Your task to perform on an android device: Open settings on Google Maps Image 0: 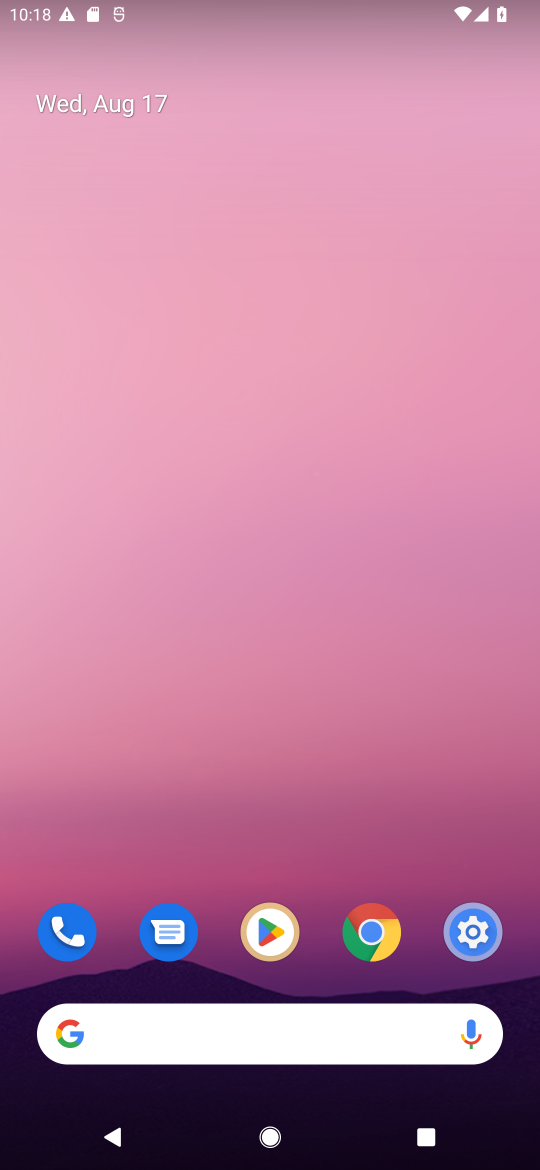
Step 0: drag from (311, 774) to (331, 94)
Your task to perform on an android device: Open settings on Google Maps Image 1: 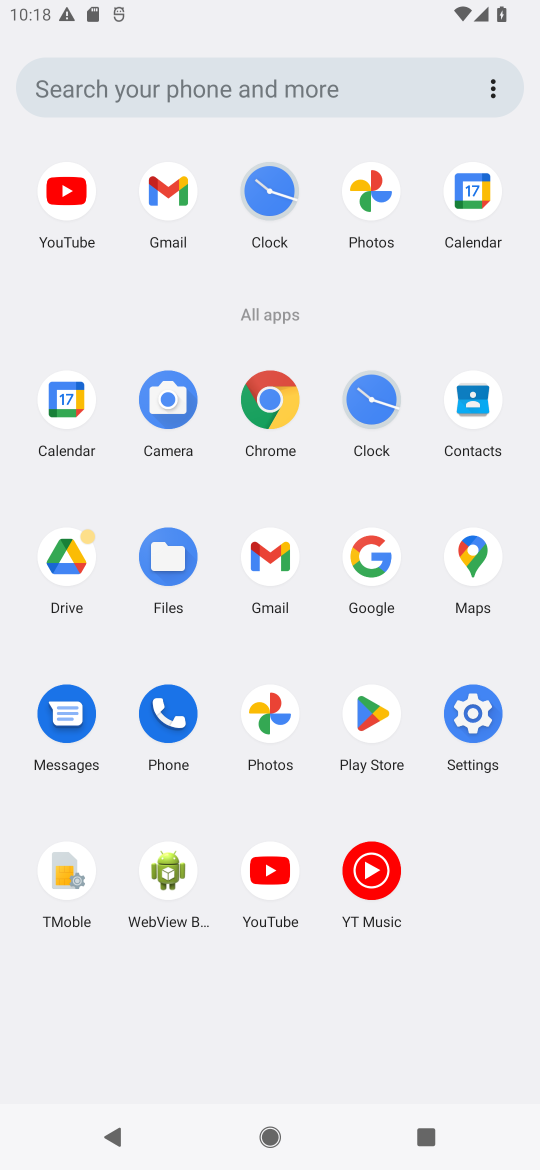
Step 1: click (498, 526)
Your task to perform on an android device: Open settings on Google Maps Image 2: 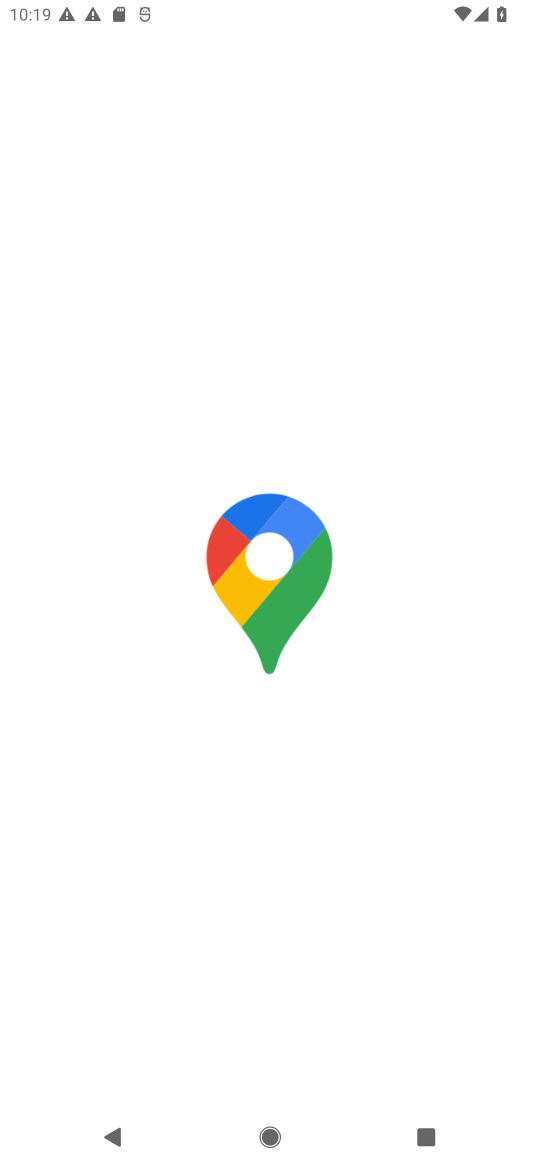
Step 2: task complete